Your task to perform on an android device: turn notification dots off Image 0: 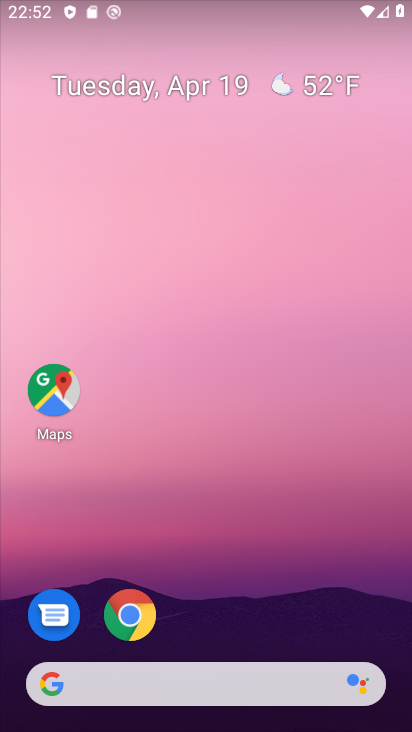
Step 0: drag from (231, 657) to (276, 203)
Your task to perform on an android device: turn notification dots off Image 1: 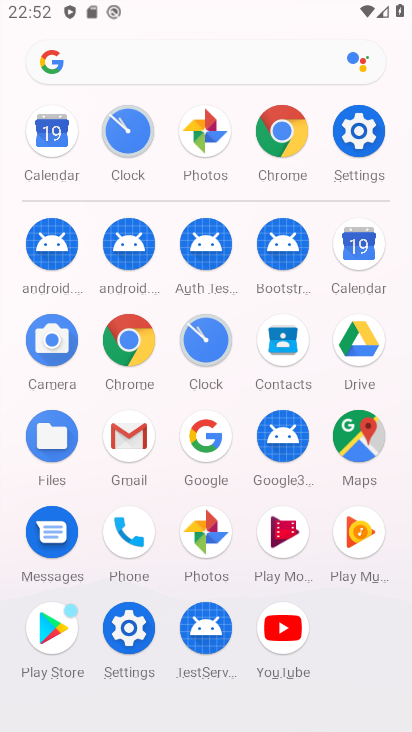
Step 1: click (357, 118)
Your task to perform on an android device: turn notification dots off Image 2: 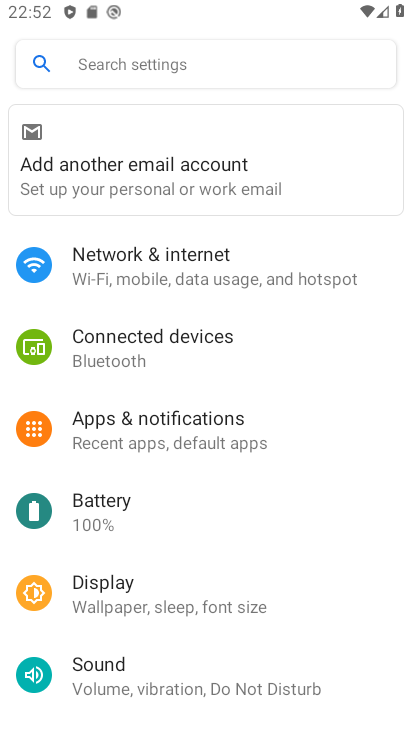
Step 2: click (225, 420)
Your task to perform on an android device: turn notification dots off Image 3: 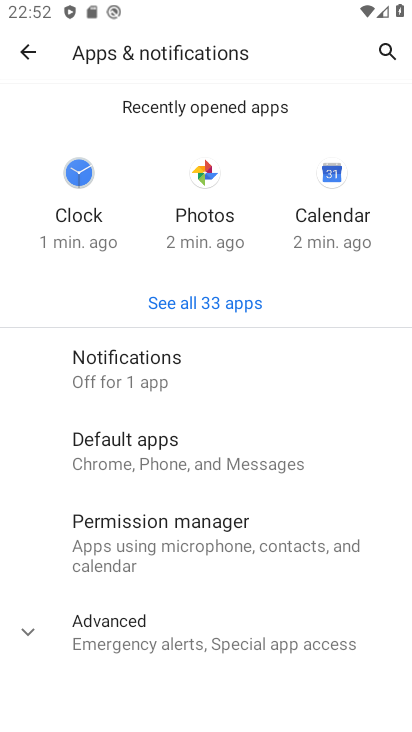
Step 3: click (152, 351)
Your task to perform on an android device: turn notification dots off Image 4: 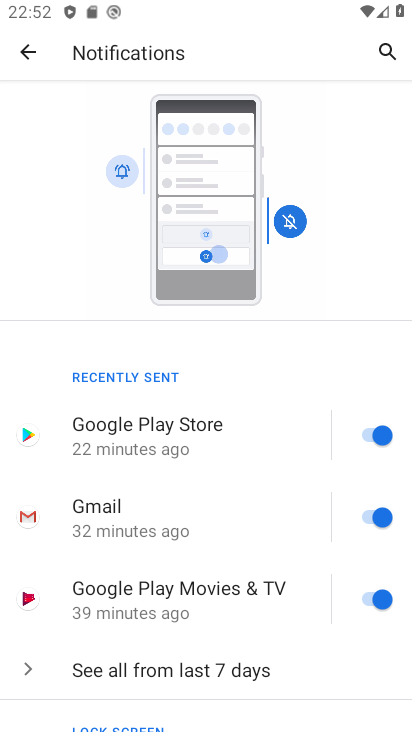
Step 4: drag from (332, 681) to (333, 54)
Your task to perform on an android device: turn notification dots off Image 5: 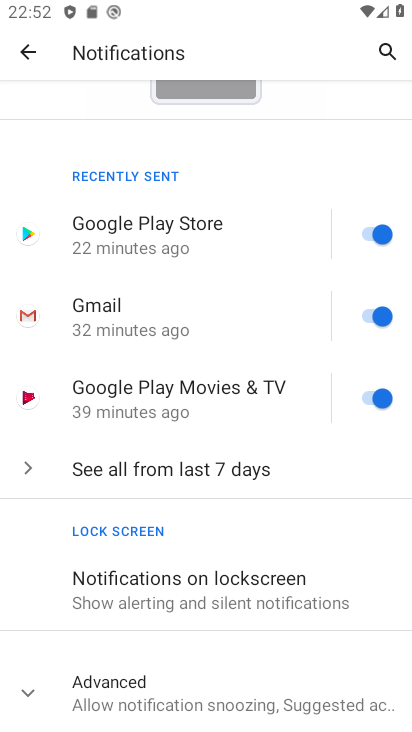
Step 5: click (172, 689)
Your task to perform on an android device: turn notification dots off Image 6: 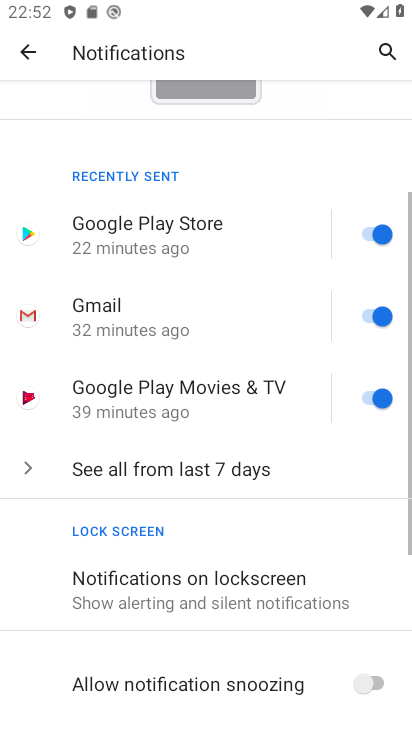
Step 6: drag from (172, 689) to (226, 273)
Your task to perform on an android device: turn notification dots off Image 7: 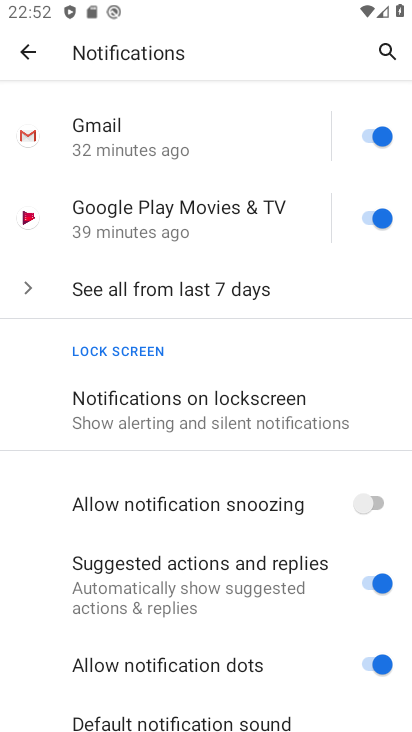
Step 7: click (371, 664)
Your task to perform on an android device: turn notification dots off Image 8: 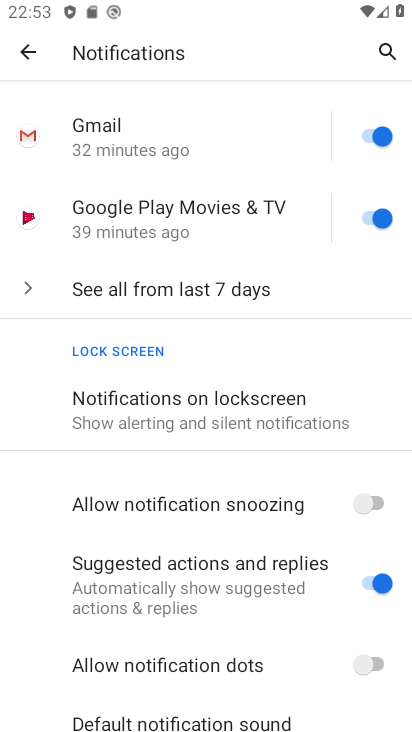
Step 8: task complete